Your task to perform on an android device: check data usage Image 0: 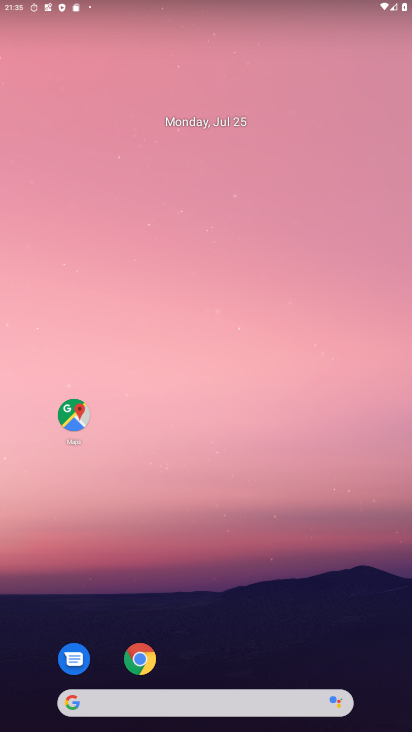
Step 0: drag from (196, 653) to (201, 196)
Your task to perform on an android device: check data usage Image 1: 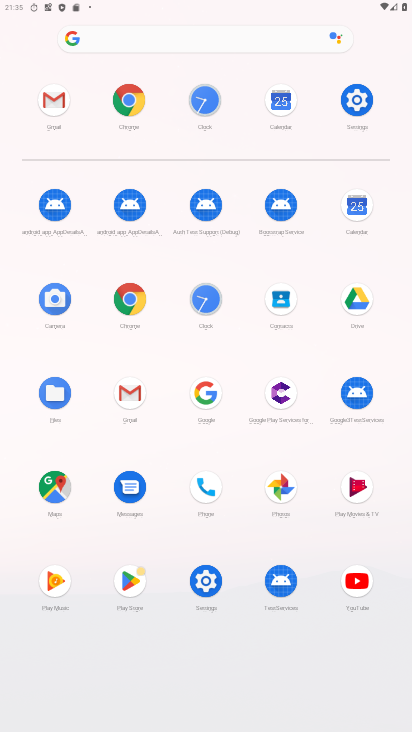
Step 1: click (347, 107)
Your task to perform on an android device: check data usage Image 2: 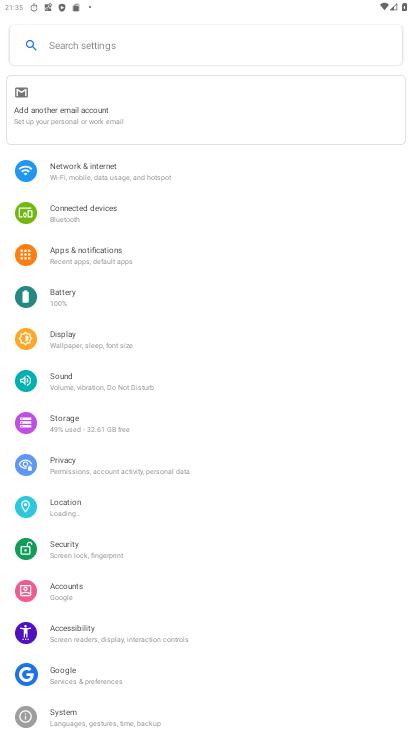
Step 2: click (169, 169)
Your task to perform on an android device: check data usage Image 3: 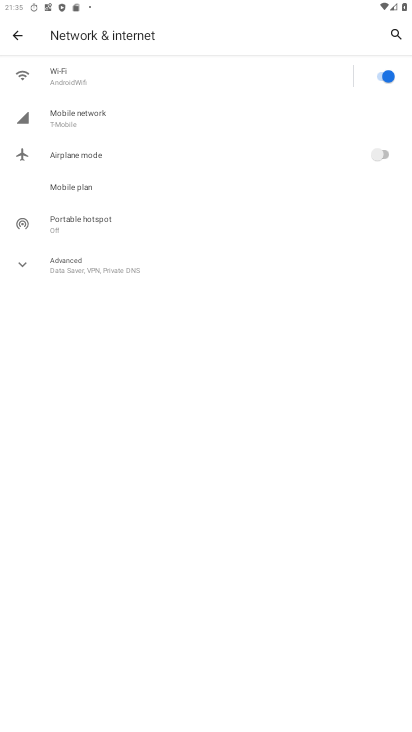
Step 3: click (91, 117)
Your task to perform on an android device: check data usage Image 4: 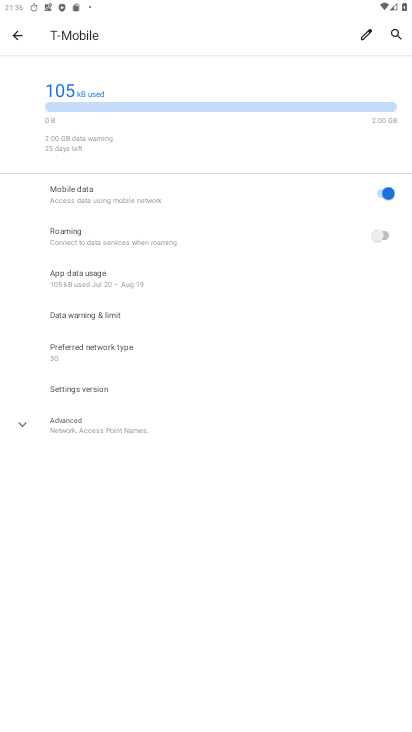
Step 4: click (117, 288)
Your task to perform on an android device: check data usage Image 5: 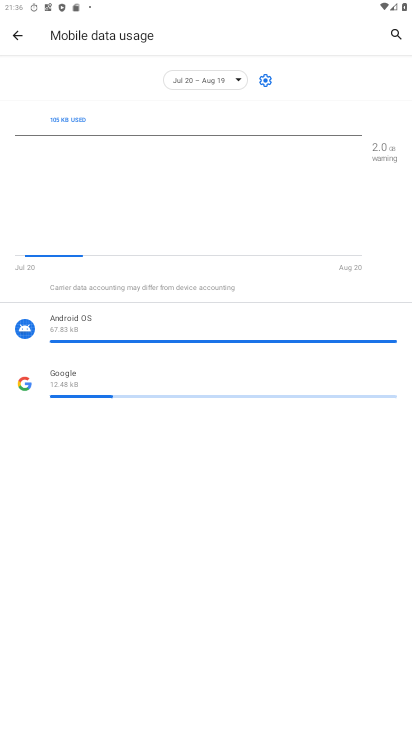
Step 5: task complete